Your task to perform on an android device: refresh tabs in the chrome app Image 0: 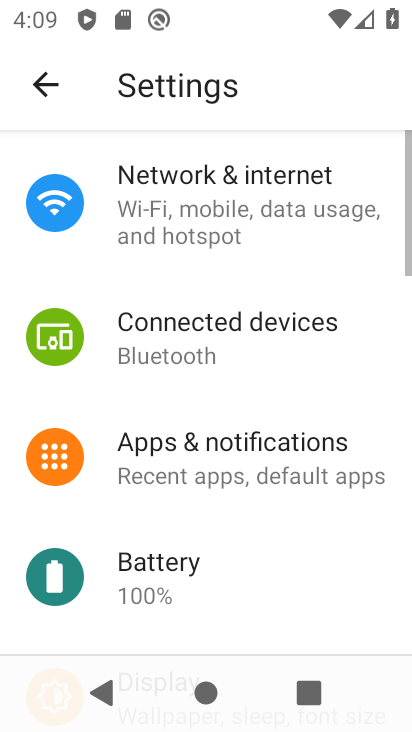
Step 0: press home button
Your task to perform on an android device: refresh tabs in the chrome app Image 1: 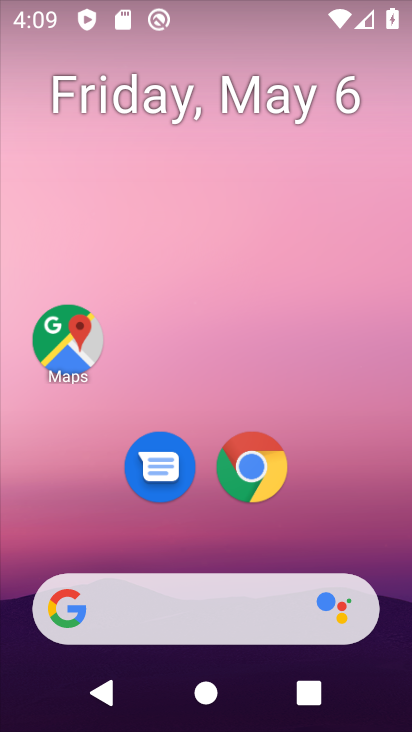
Step 1: click (61, 346)
Your task to perform on an android device: refresh tabs in the chrome app Image 2: 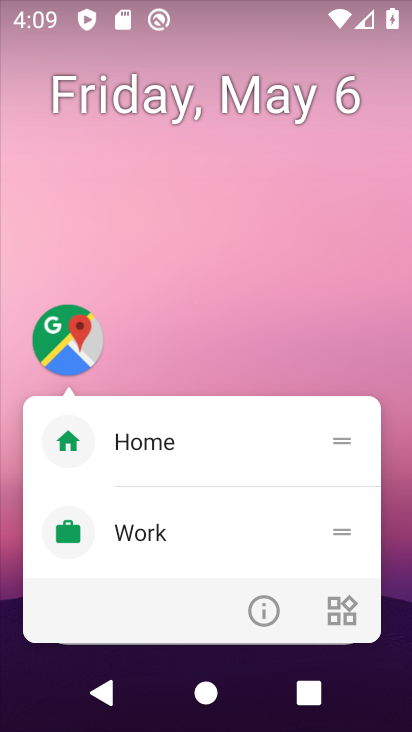
Step 2: click (69, 336)
Your task to perform on an android device: refresh tabs in the chrome app Image 3: 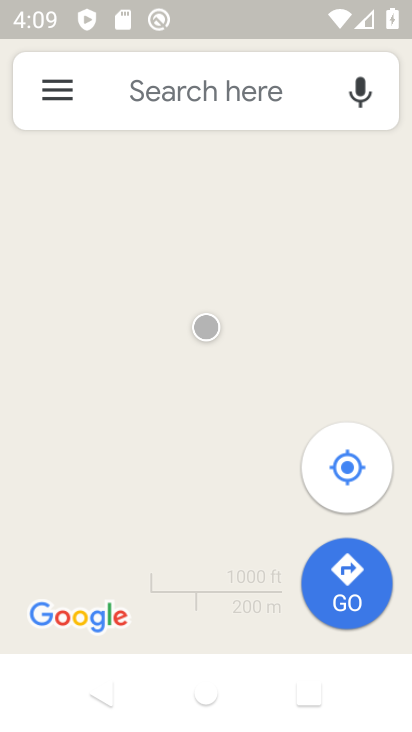
Step 3: press home button
Your task to perform on an android device: refresh tabs in the chrome app Image 4: 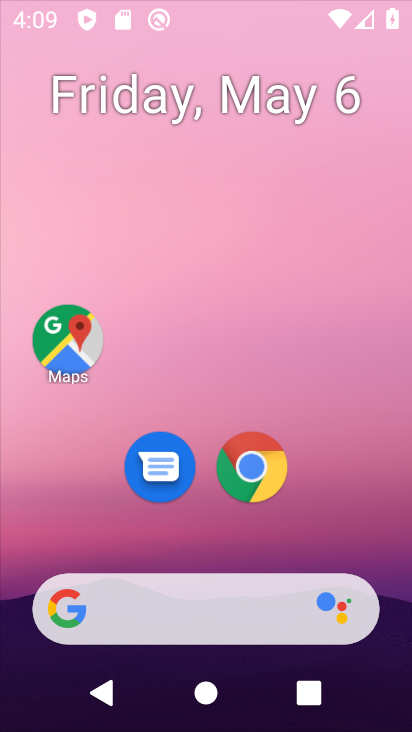
Step 4: drag from (317, 565) to (297, 141)
Your task to perform on an android device: refresh tabs in the chrome app Image 5: 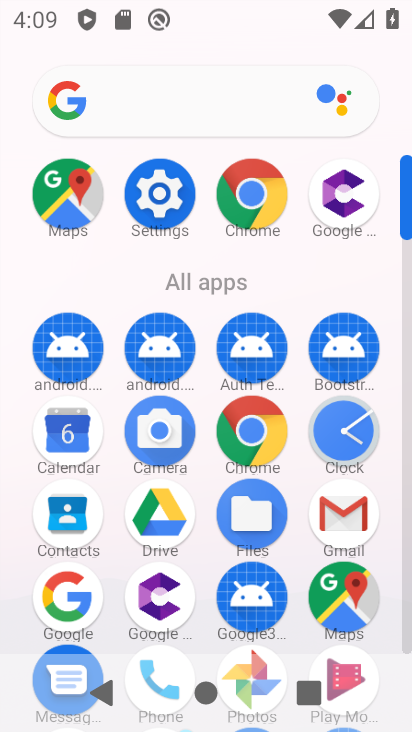
Step 5: click (270, 234)
Your task to perform on an android device: refresh tabs in the chrome app Image 6: 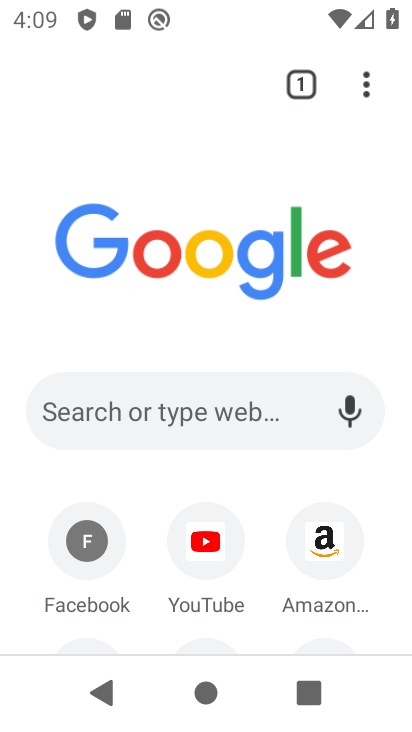
Step 6: click (370, 89)
Your task to perform on an android device: refresh tabs in the chrome app Image 7: 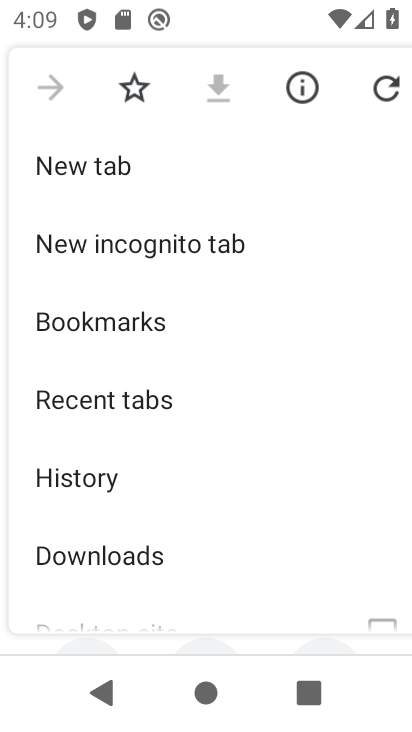
Step 7: click (394, 85)
Your task to perform on an android device: refresh tabs in the chrome app Image 8: 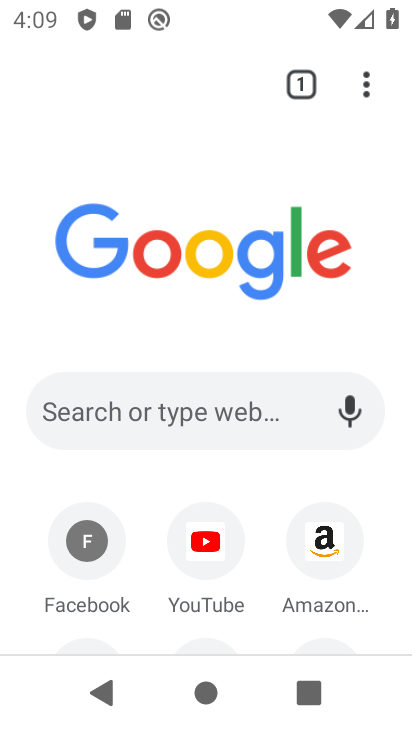
Step 8: task complete